Your task to perform on an android device: What's the weather going to be tomorrow? Image 0: 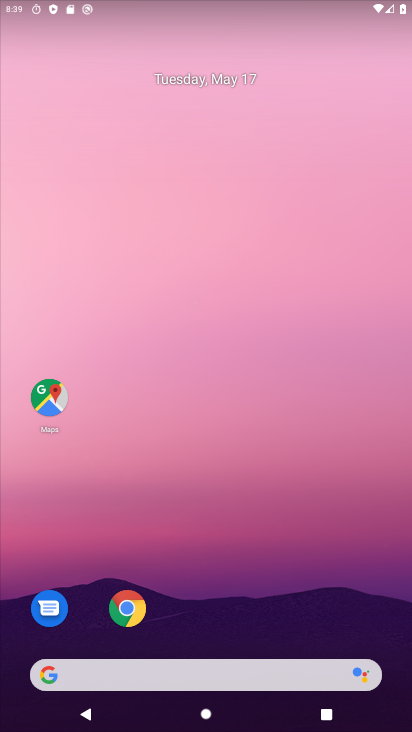
Step 0: drag from (351, 585) to (351, 219)
Your task to perform on an android device: What's the weather going to be tomorrow? Image 1: 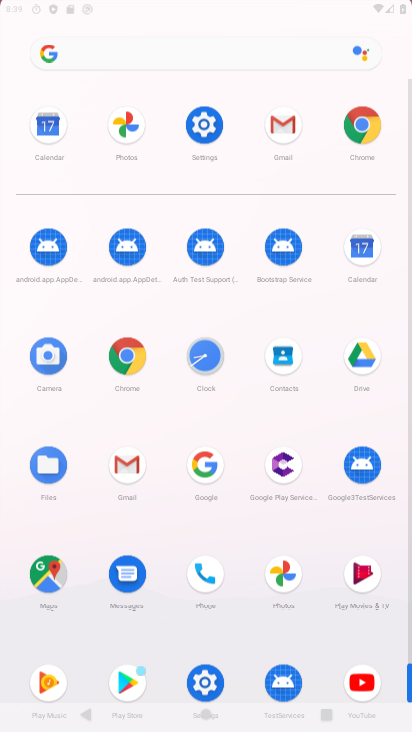
Step 1: drag from (302, 567) to (287, 62)
Your task to perform on an android device: What's the weather going to be tomorrow? Image 2: 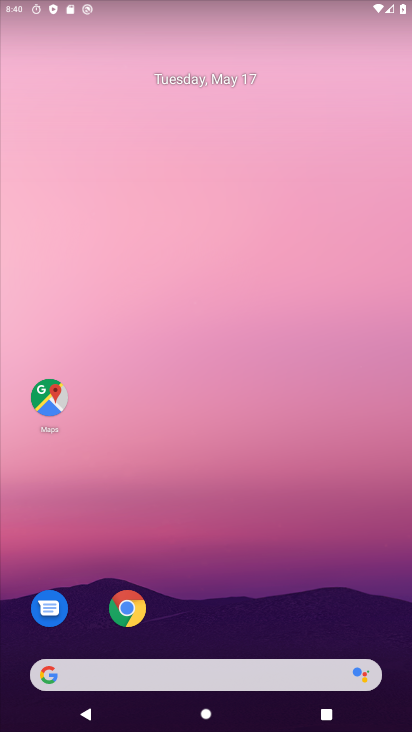
Step 2: drag from (327, 518) to (330, 124)
Your task to perform on an android device: What's the weather going to be tomorrow? Image 3: 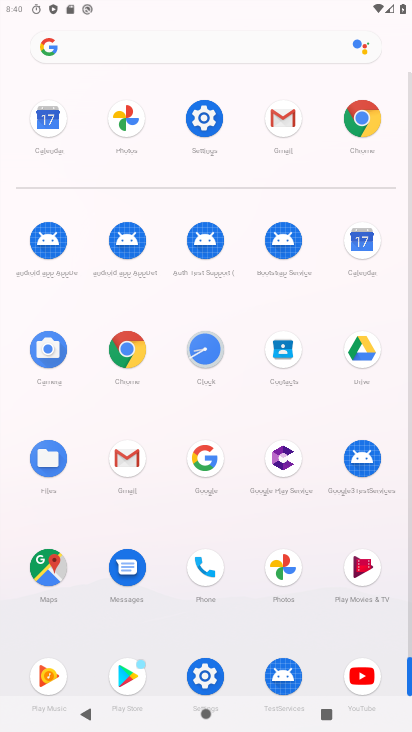
Step 3: click (115, 341)
Your task to perform on an android device: What's the weather going to be tomorrow? Image 4: 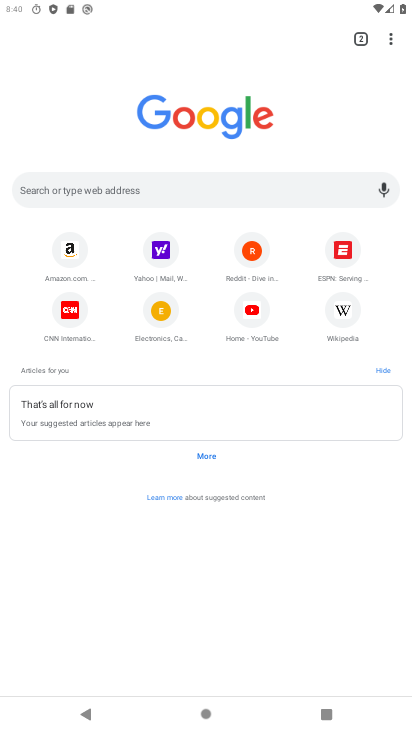
Step 4: click (131, 191)
Your task to perform on an android device: What's the weather going to be tomorrow? Image 5: 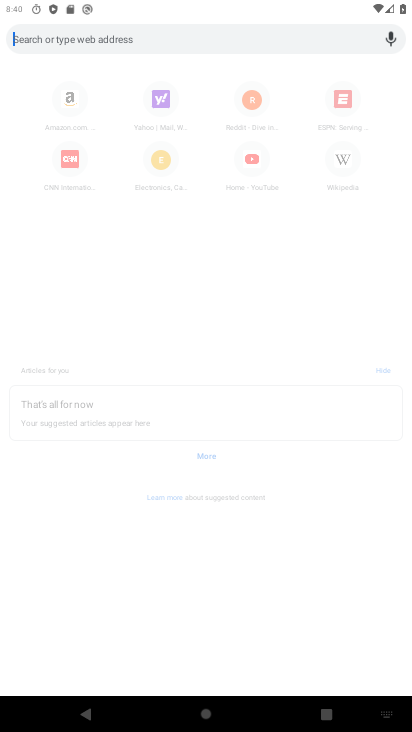
Step 5: type "what's the weather going to be tomorrow"
Your task to perform on an android device: What's the weather going to be tomorrow? Image 6: 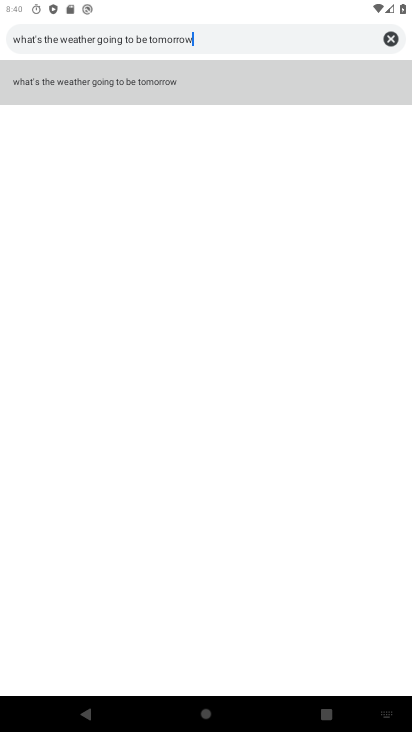
Step 6: click (143, 85)
Your task to perform on an android device: What's the weather going to be tomorrow? Image 7: 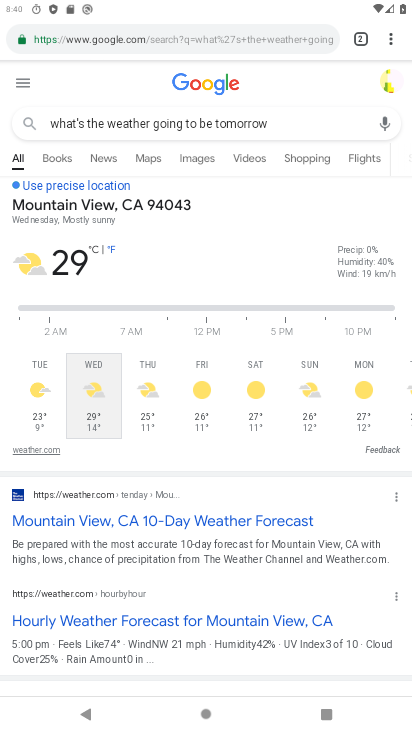
Step 7: task complete